Your task to perform on an android device: check data usage Image 0: 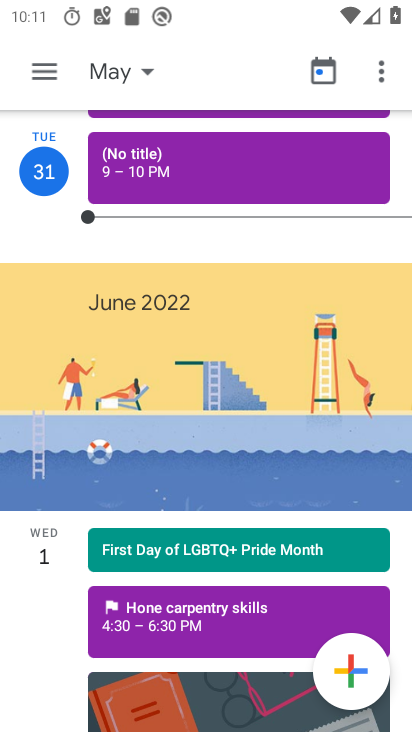
Step 0: drag from (235, 11) to (192, 549)
Your task to perform on an android device: check data usage Image 1: 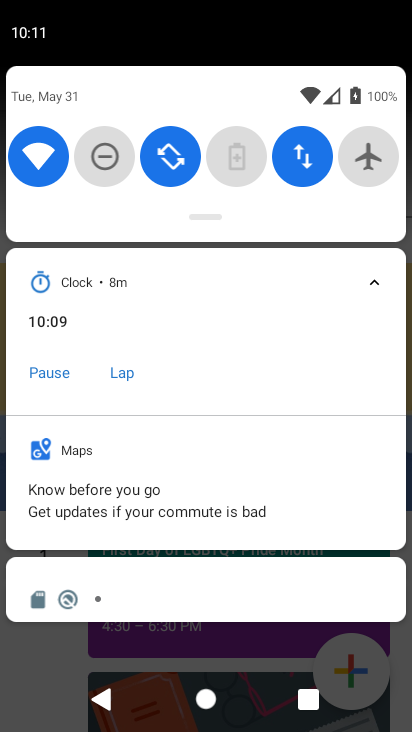
Step 1: click (311, 146)
Your task to perform on an android device: check data usage Image 2: 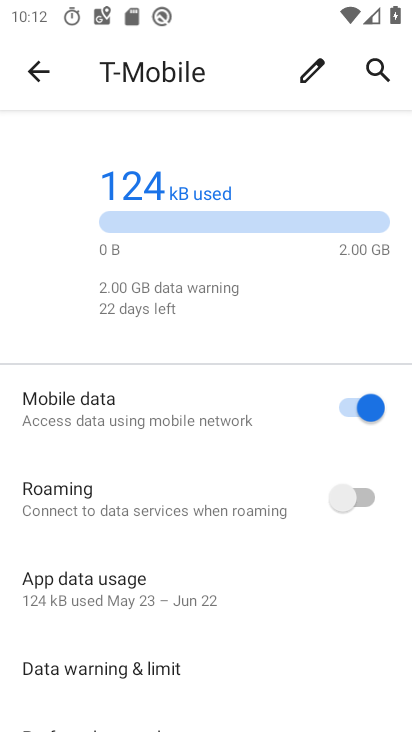
Step 2: task complete